Your task to perform on an android device: What's the weather going to be this weekend? Image 0: 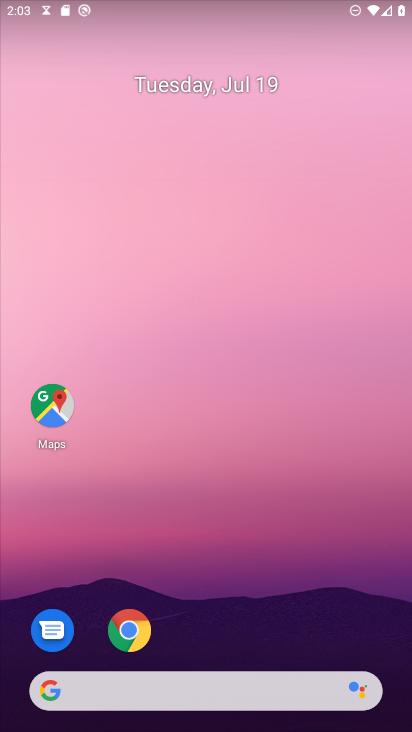
Step 0: click (125, 689)
Your task to perform on an android device: What's the weather going to be this weekend? Image 1: 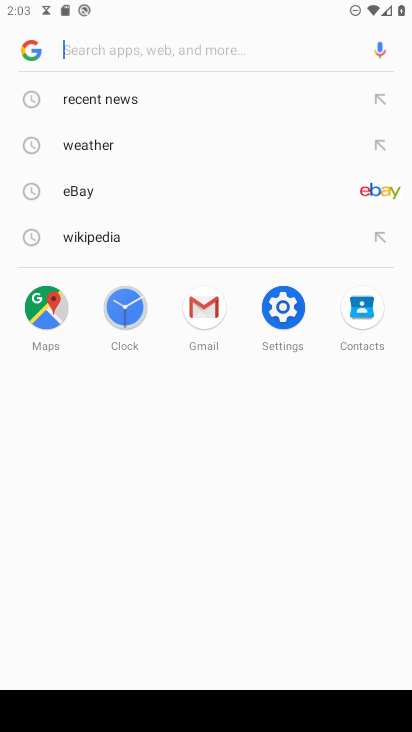
Step 1: click (95, 147)
Your task to perform on an android device: What's the weather going to be this weekend? Image 2: 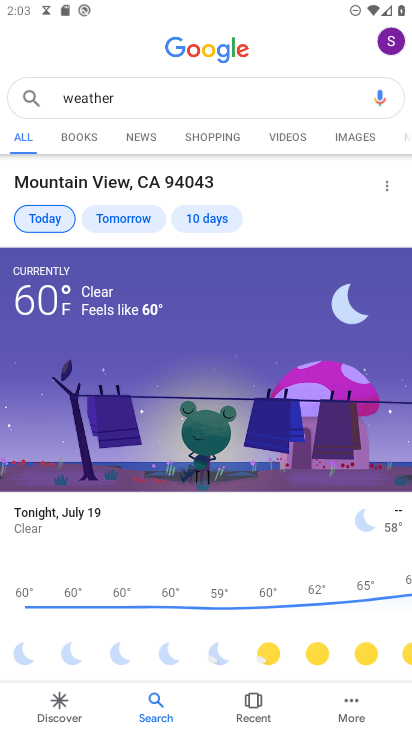
Step 2: click (208, 215)
Your task to perform on an android device: What's the weather going to be this weekend? Image 3: 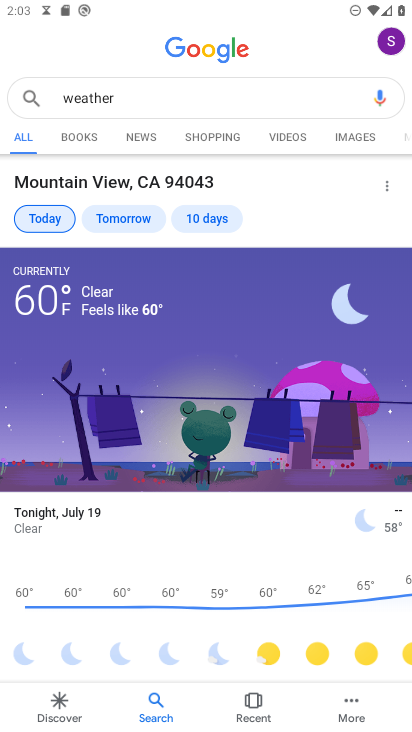
Step 3: click (209, 218)
Your task to perform on an android device: What's the weather going to be this weekend? Image 4: 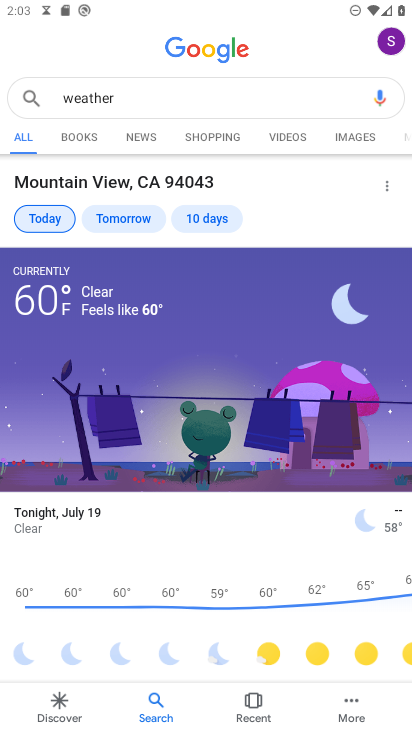
Step 4: click (199, 217)
Your task to perform on an android device: What's the weather going to be this weekend? Image 5: 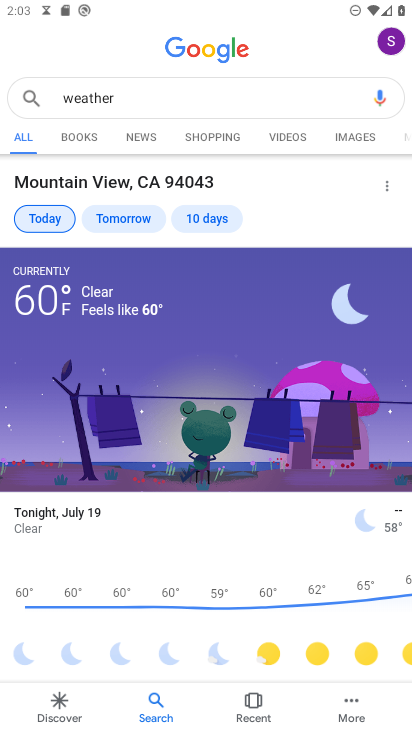
Step 5: click (206, 218)
Your task to perform on an android device: What's the weather going to be this weekend? Image 6: 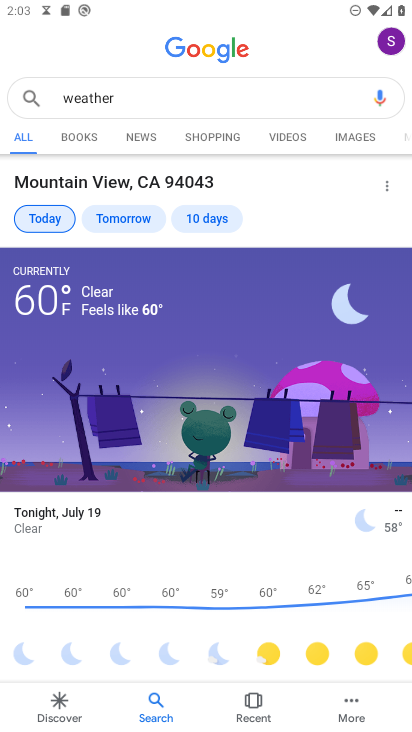
Step 6: click (206, 217)
Your task to perform on an android device: What's the weather going to be this weekend? Image 7: 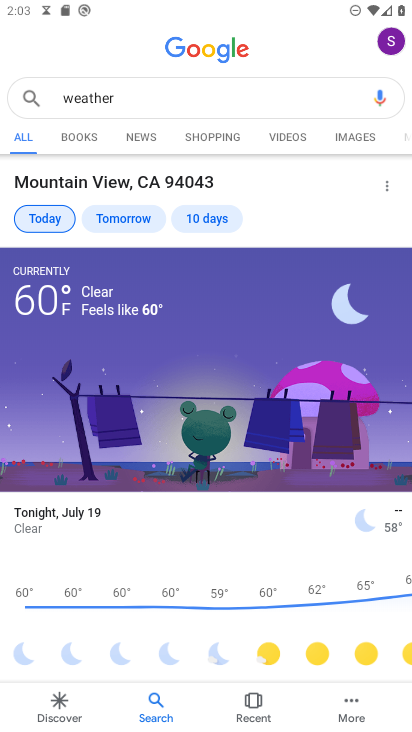
Step 7: click (199, 220)
Your task to perform on an android device: What's the weather going to be this weekend? Image 8: 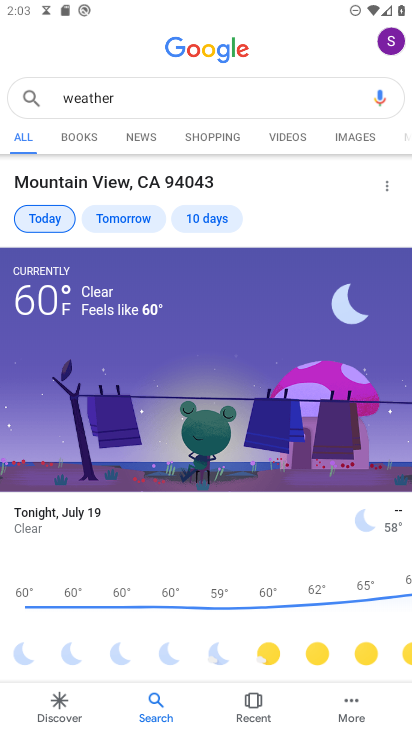
Step 8: click (199, 220)
Your task to perform on an android device: What's the weather going to be this weekend? Image 9: 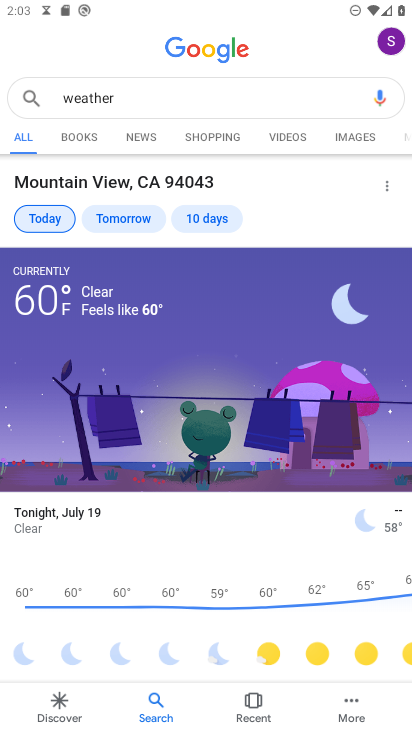
Step 9: click (128, 216)
Your task to perform on an android device: What's the weather going to be this weekend? Image 10: 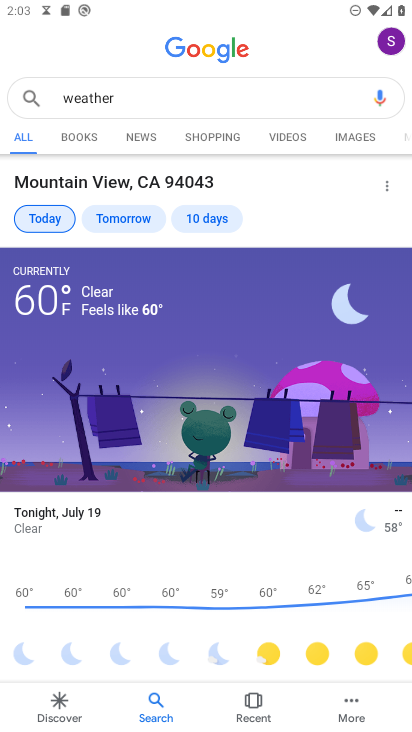
Step 10: click (201, 223)
Your task to perform on an android device: What's the weather going to be this weekend? Image 11: 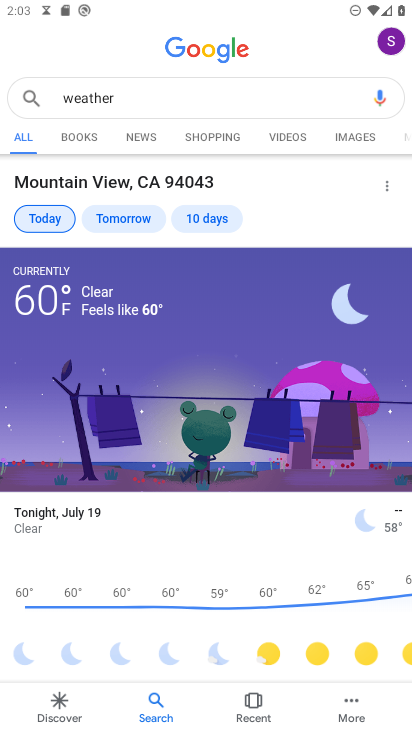
Step 11: click (210, 215)
Your task to perform on an android device: What's the weather going to be this weekend? Image 12: 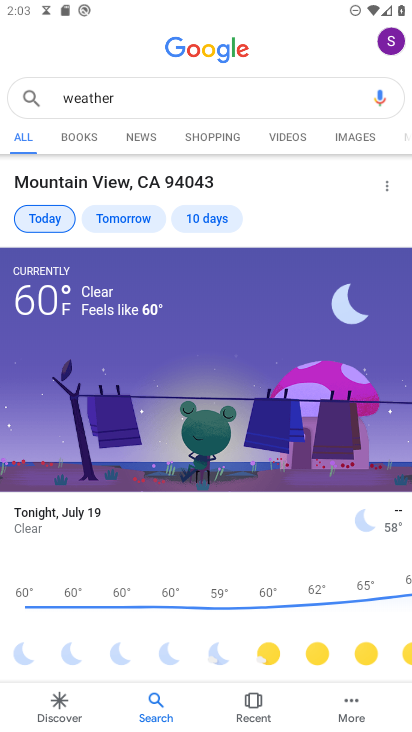
Step 12: click (211, 215)
Your task to perform on an android device: What's the weather going to be this weekend? Image 13: 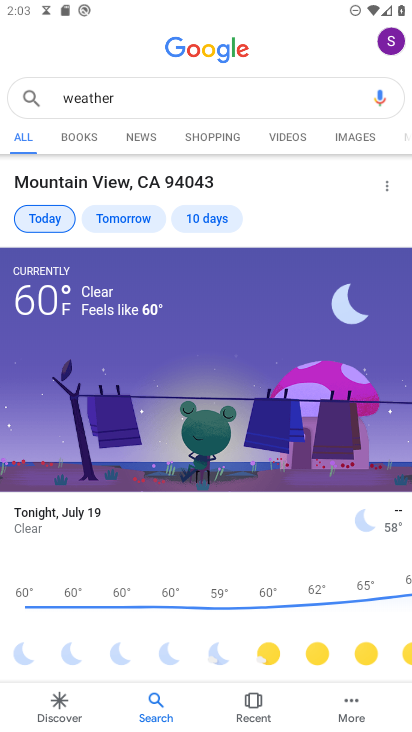
Step 13: task complete